Your task to perform on an android device: Go to Wikipedia Image 0: 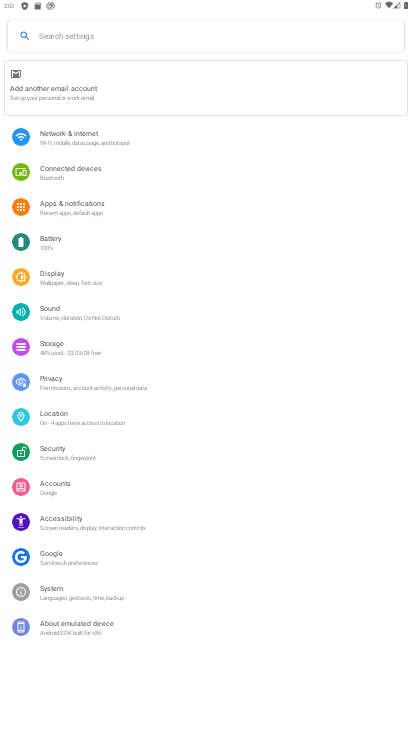
Step 0: press home button
Your task to perform on an android device: Go to Wikipedia Image 1: 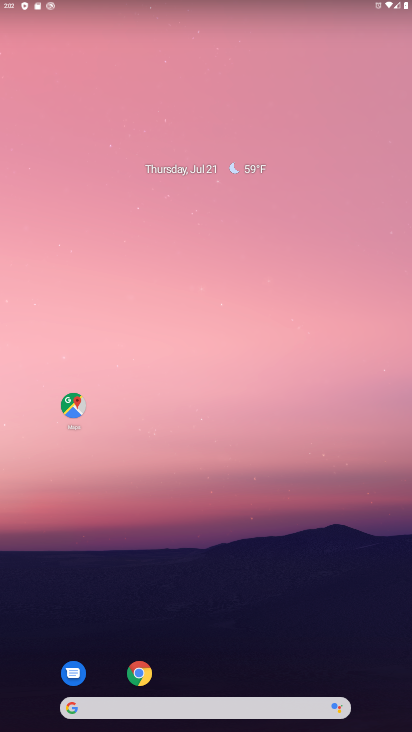
Step 1: drag from (183, 705) to (237, 40)
Your task to perform on an android device: Go to Wikipedia Image 2: 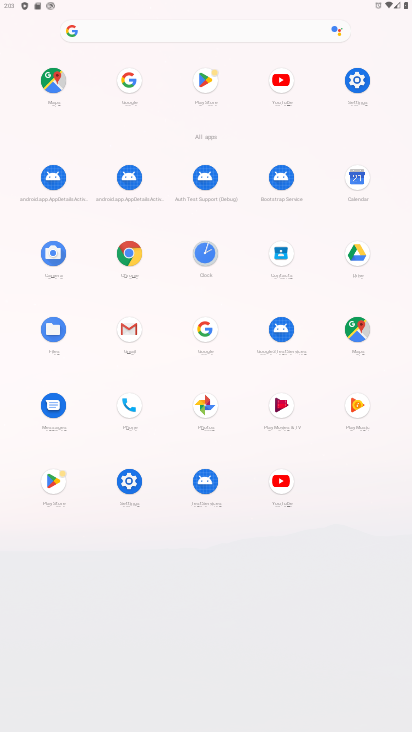
Step 2: click (205, 325)
Your task to perform on an android device: Go to Wikipedia Image 3: 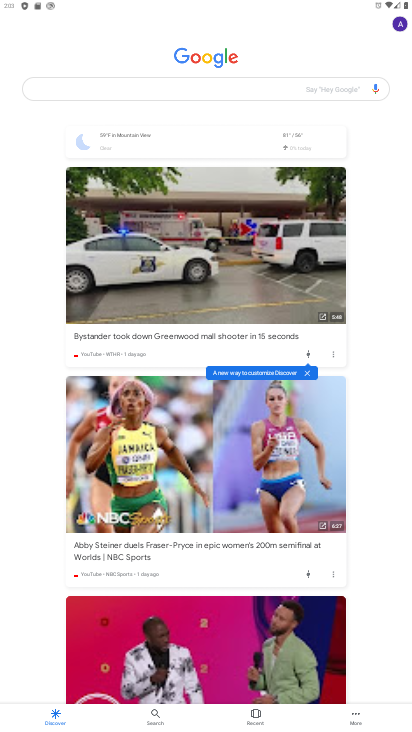
Step 3: click (197, 86)
Your task to perform on an android device: Go to Wikipedia Image 4: 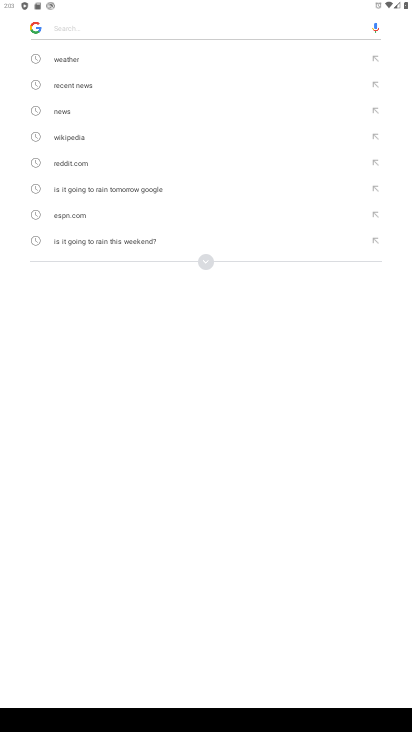
Step 4: type "Wikipedia"
Your task to perform on an android device: Go to Wikipedia Image 5: 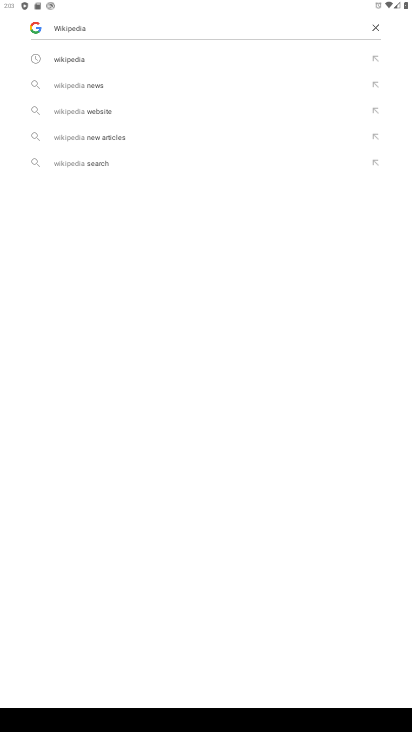
Step 5: click (69, 63)
Your task to perform on an android device: Go to Wikipedia Image 6: 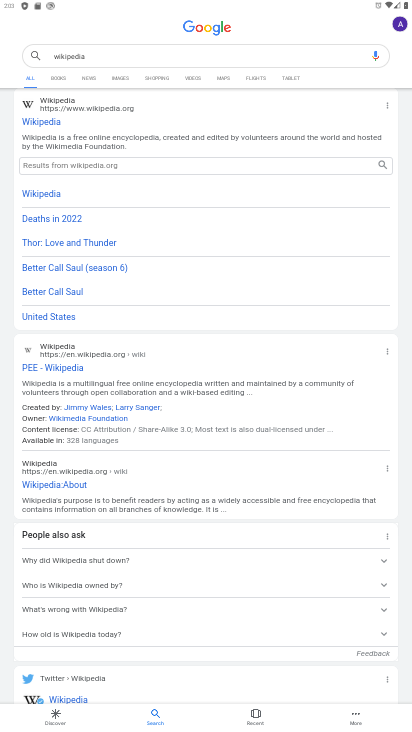
Step 6: click (50, 122)
Your task to perform on an android device: Go to Wikipedia Image 7: 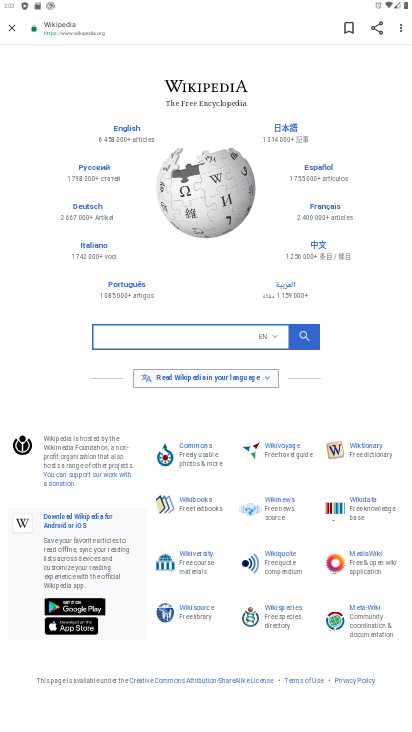
Step 7: task complete